Your task to perform on an android device: Open the web browser Image 0: 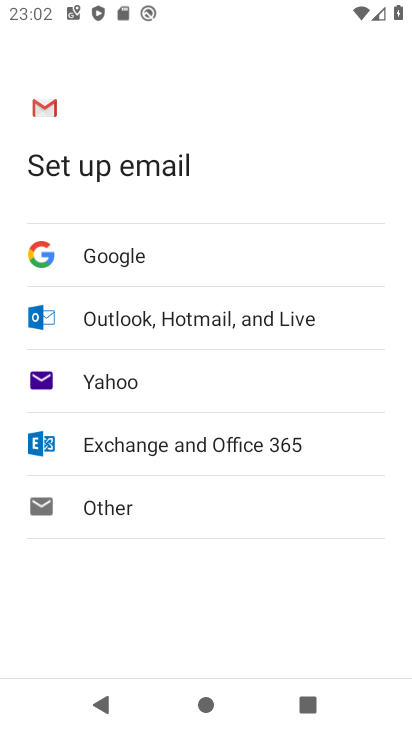
Step 0: press home button
Your task to perform on an android device: Open the web browser Image 1: 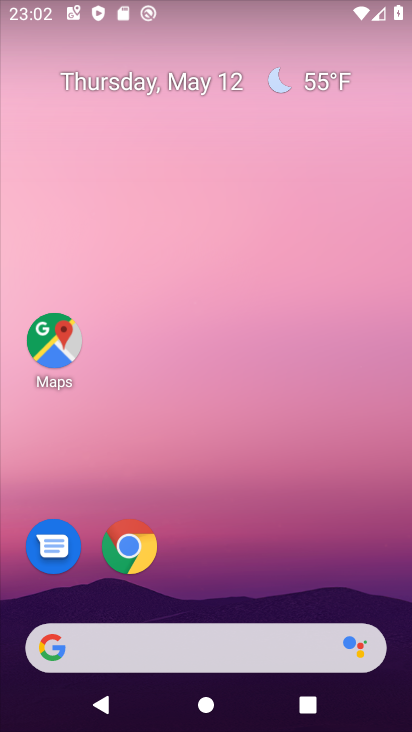
Step 1: click (128, 545)
Your task to perform on an android device: Open the web browser Image 2: 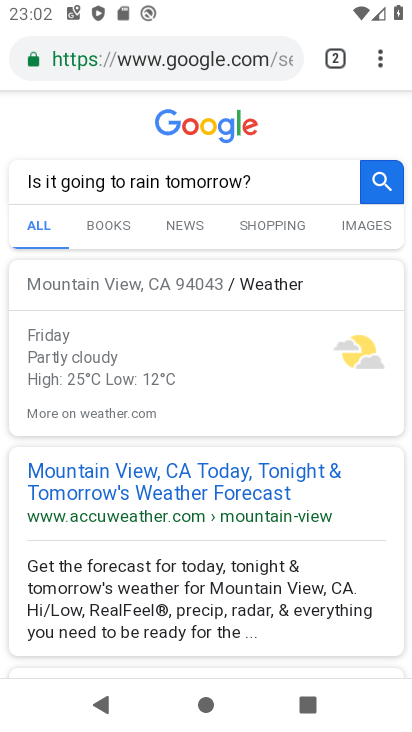
Step 2: click (118, 66)
Your task to perform on an android device: Open the web browser Image 3: 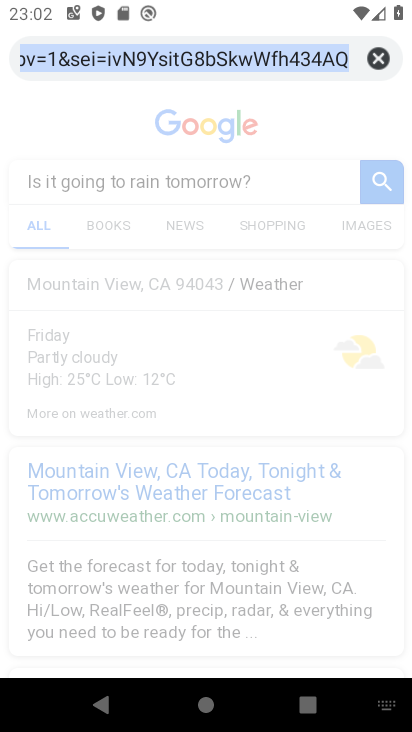
Step 3: task complete